Your task to perform on an android device: Open the calendar and show me this week's events Image 0: 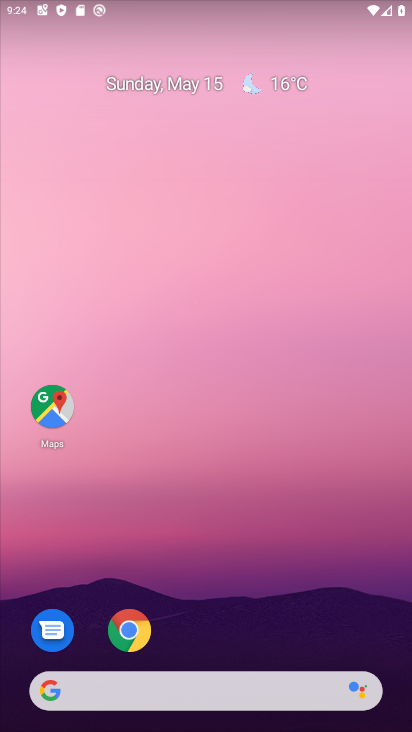
Step 0: drag from (209, 587) to (209, 154)
Your task to perform on an android device: Open the calendar and show me this week's events Image 1: 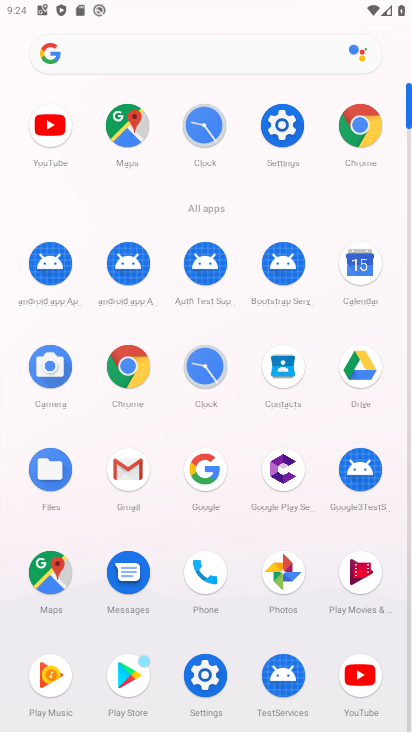
Step 1: click (345, 256)
Your task to perform on an android device: Open the calendar and show me this week's events Image 2: 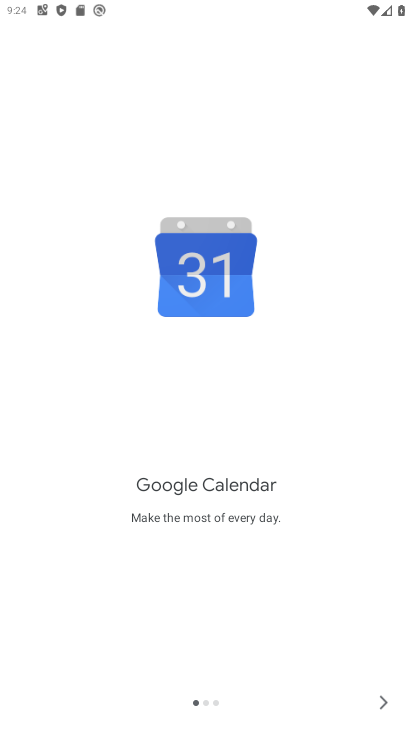
Step 2: click (384, 707)
Your task to perform on an android device: Open the calendar and show me this week's events Image 3: 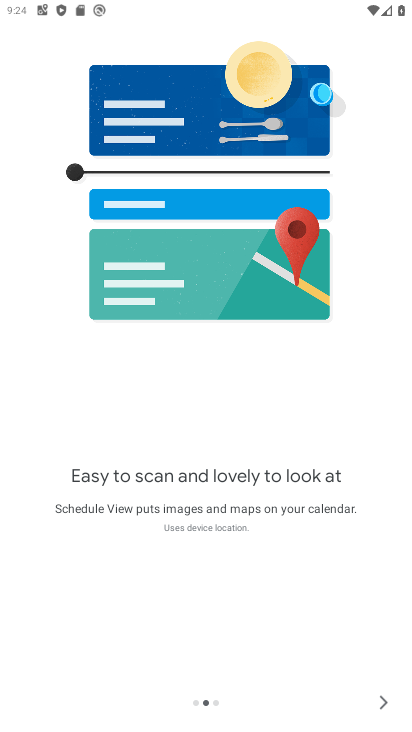
Step 3: click (385, 707)
Your task to perform on an android device: Open the calendar and show me this week's events Image 4: 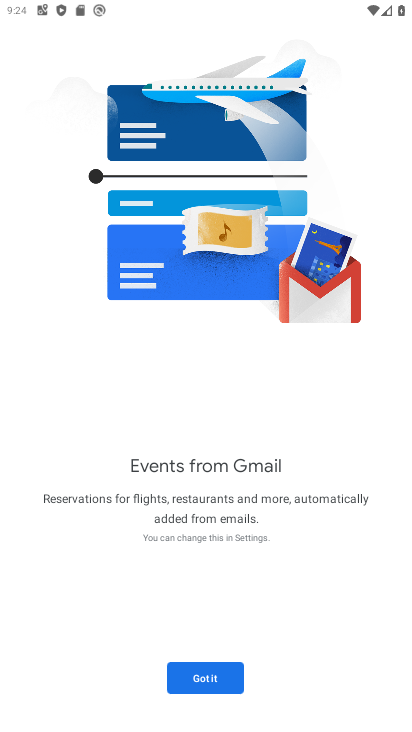
Step 4: click (228, 683)
Your task to perform on an android device: Open the calendar and show me this week's events Image 5: 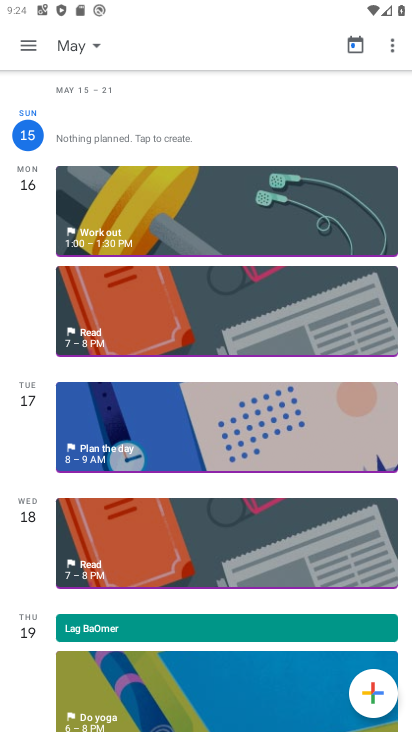
Step 5: click (95, 45)
Your task to perform on an android device: Open the calendar and show me this week's events Image 6: 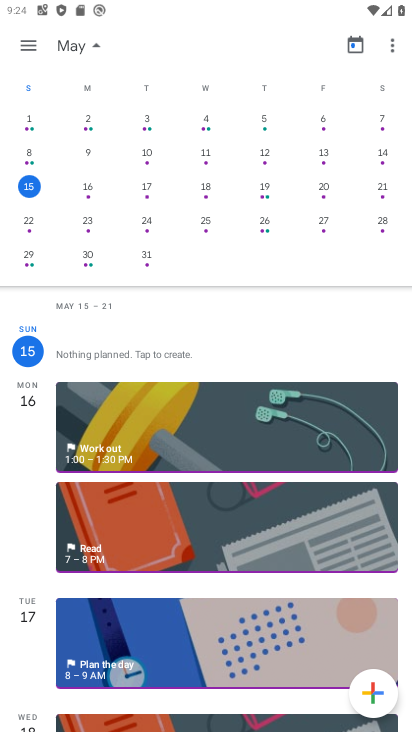
Step 6: click (143, 187)
Your task to perform on an android device: Open the calendar and show me this week's events Image 7: 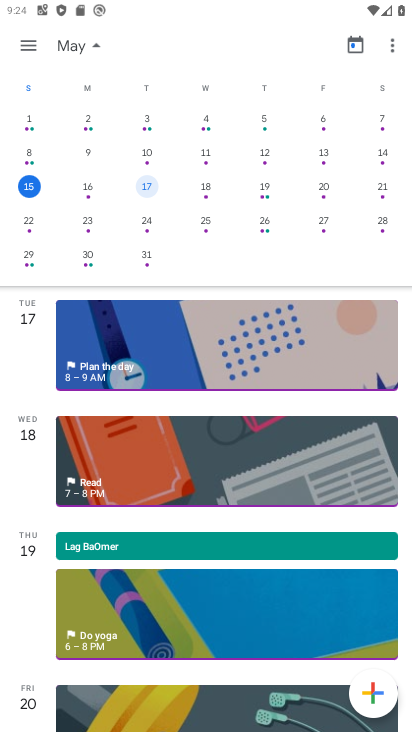
Step 7: task complete